Your task to perform on an android device: Go to sound settings Image 0: 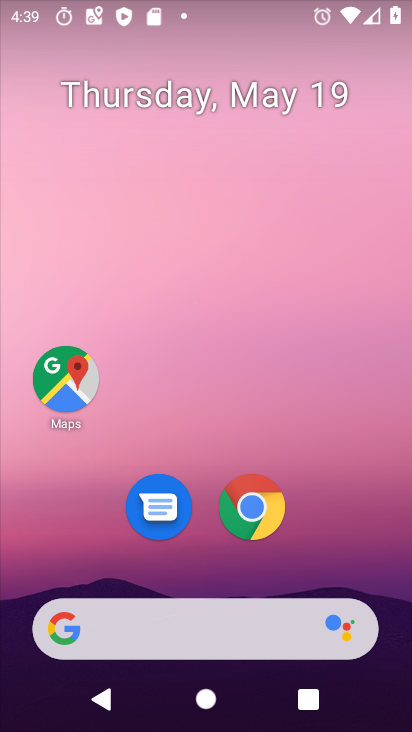
Step 0: press home button
Your task to perform on an android device: Go to sound settings Image 1: 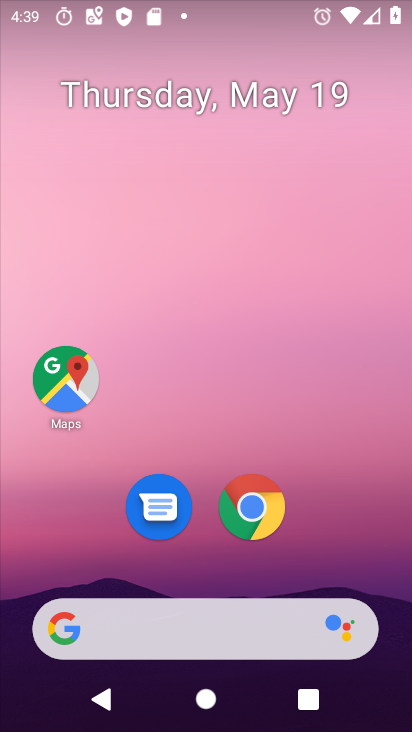
Step 1: click (369, 249)
Your task to perform on an android device: Go to sound settings Image 2: 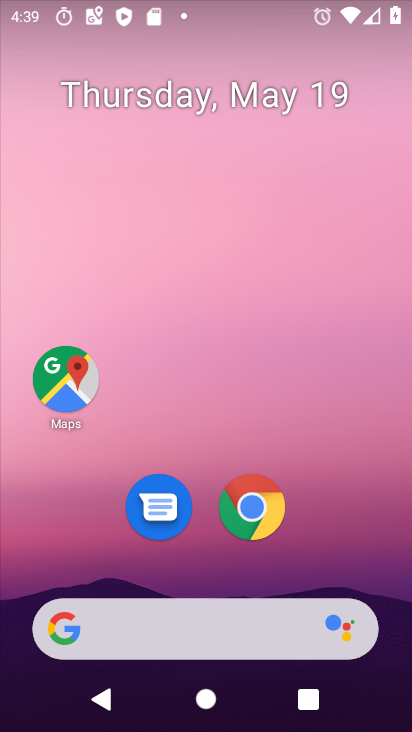
Step 2: drag from (374, 568) to (357, 227)
Your task to perform on an android device: Go to sound settings Image 3: 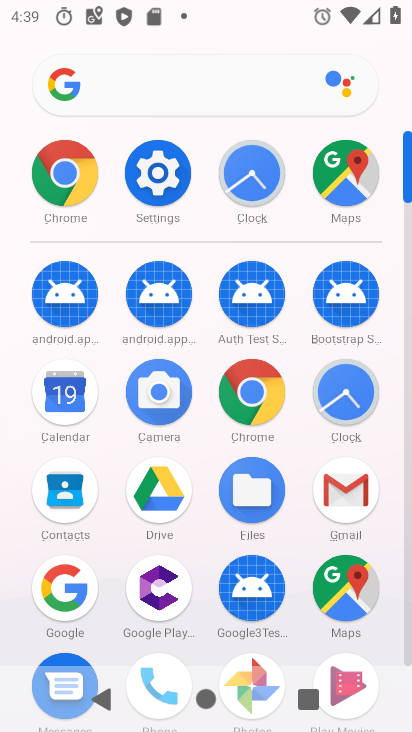
Step 3: click (164, 180)
Your task to perform on an android device: Go to sound settings Image 4: 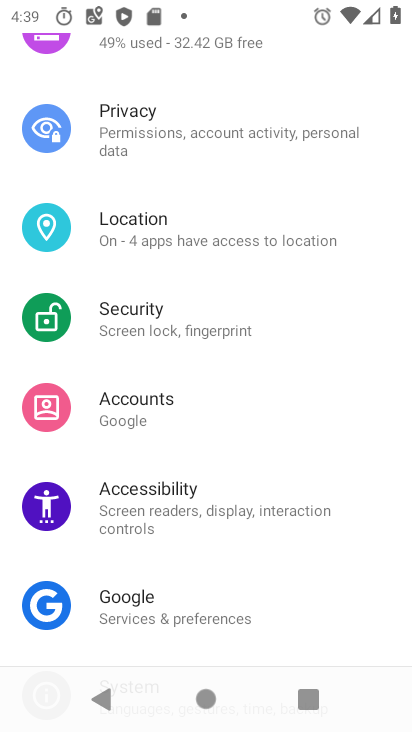
Step 4: drag from (306, 574) to (313, 303)
Your task to perform on an android device: Go to sound settings Image 5: 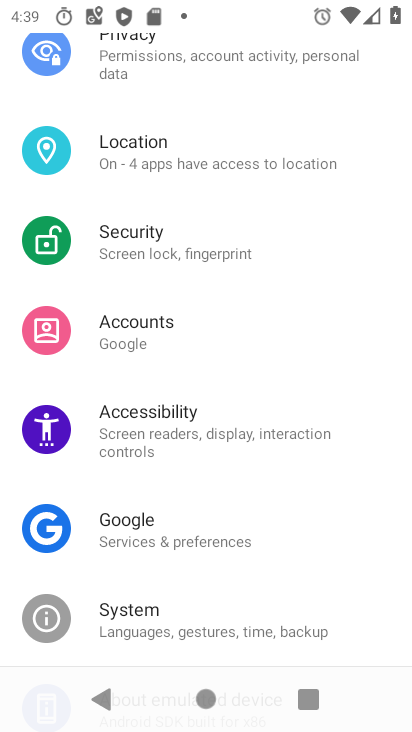
Step 5: drag from (236, 560) to (247, 345)
Your task to perform on an android device: Go to sound settings Image 6: 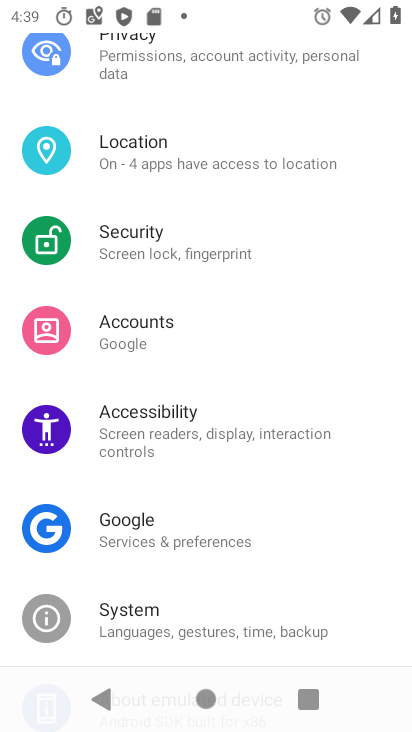
Step 6: drag from (243, 155) to (295, 375)
Your task to perform on an android device: Go to sound settings Image 7: 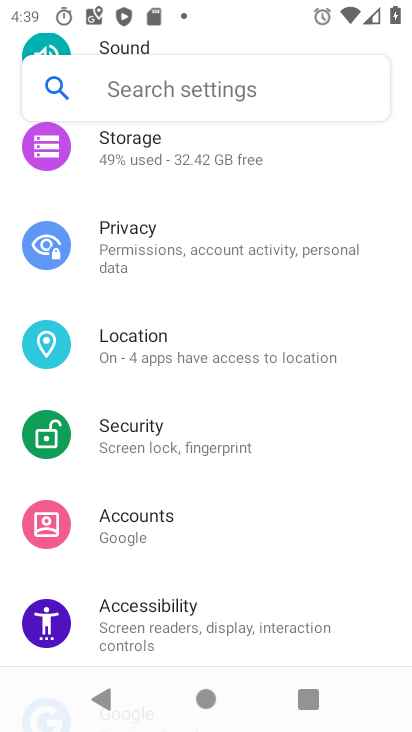
Step 7: click (246, 361)
Your task to perform on an android device: Go to sound settings Image 8: 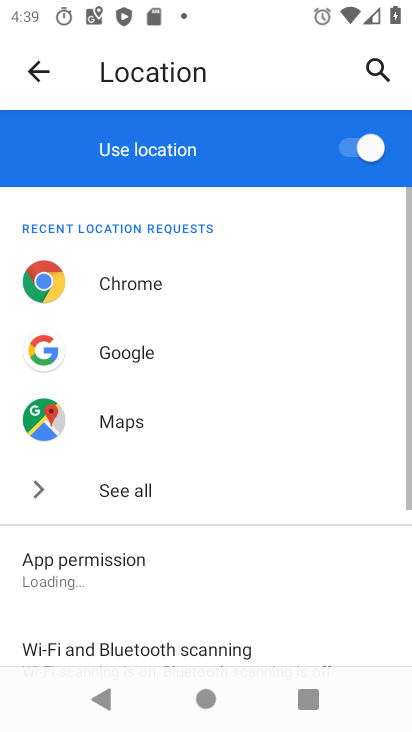
Step 8: click (303, 320)
Your task to perform on an android device: Go to sound settings Image 9: 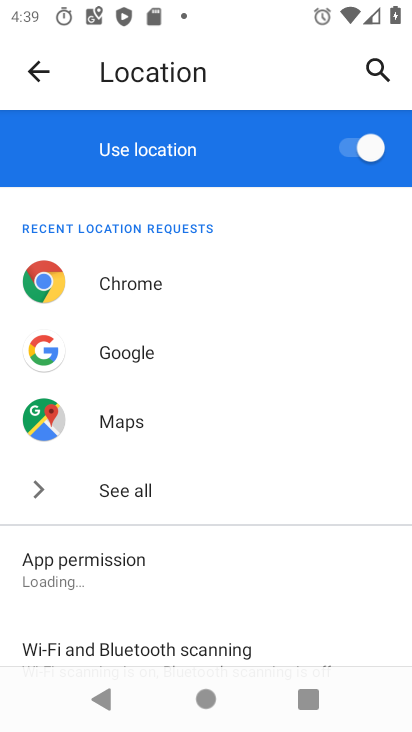
Step 9: drag from (313, 223) to (327, 505)
Your task to perform on an android device: Go to sound settings Image 10: 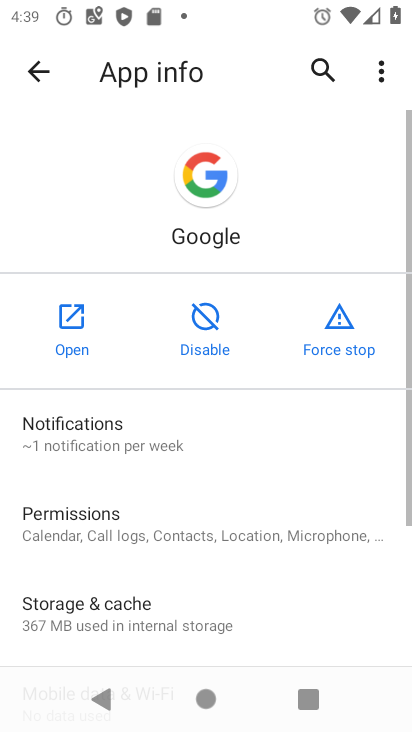
Step 10: click (44, 67)
Your task to perform on an android device: Go to sound settings Image 11: 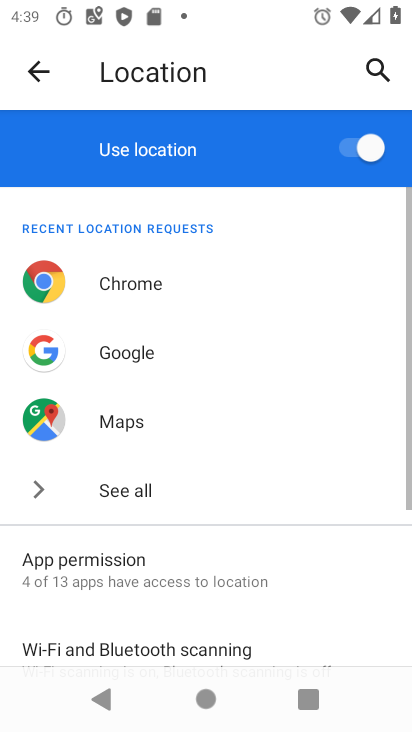
Step 11: click (31, 71)
Your task to perform on an android device: Go to sound settings Image 12: 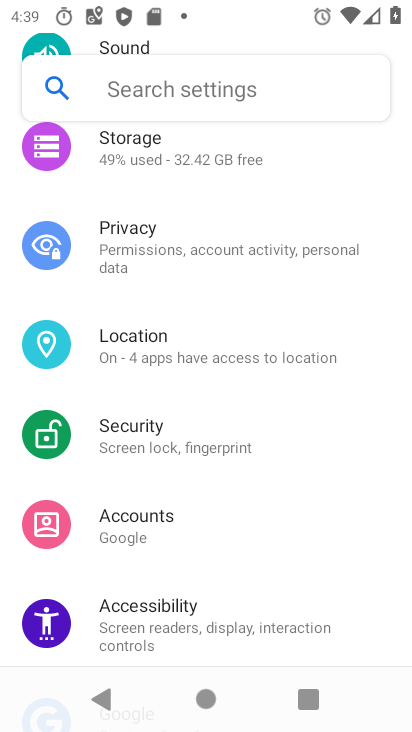
Step 12: click (113, 42)
Your task to perform on an android device: Go to sound settings Image 13: 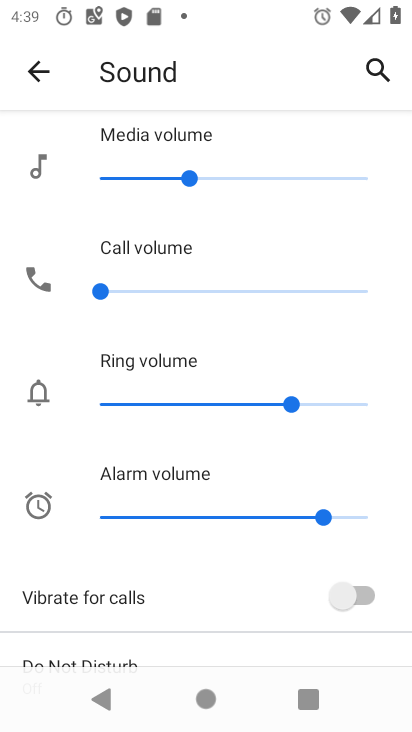
Step 13: task complete